Your task to perform on an android device: change keyboard looks Image 0: 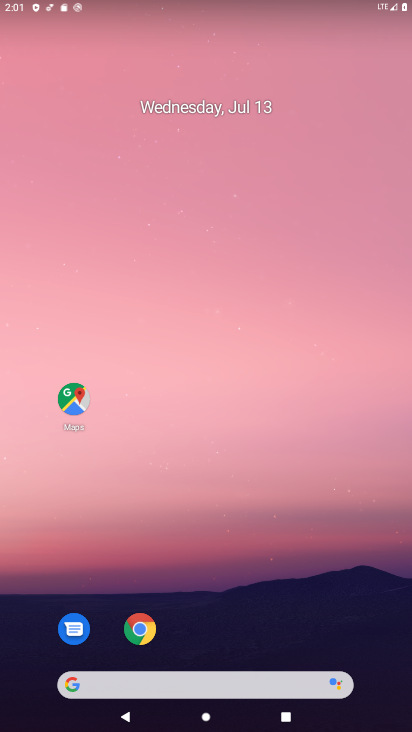
Step 0: drag from (267, 649) to (282, 147)
Your task to perform on an android device: change keyboard looks Image 1: 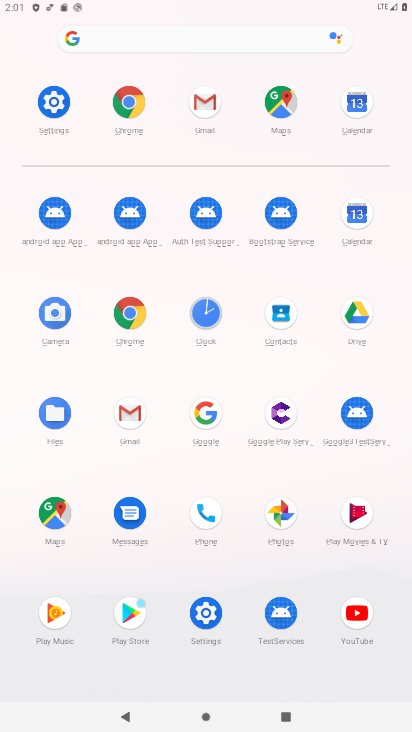
Step 1: click (206, 611)
Your task to perform on an android device: change keyboard looks Image 2: 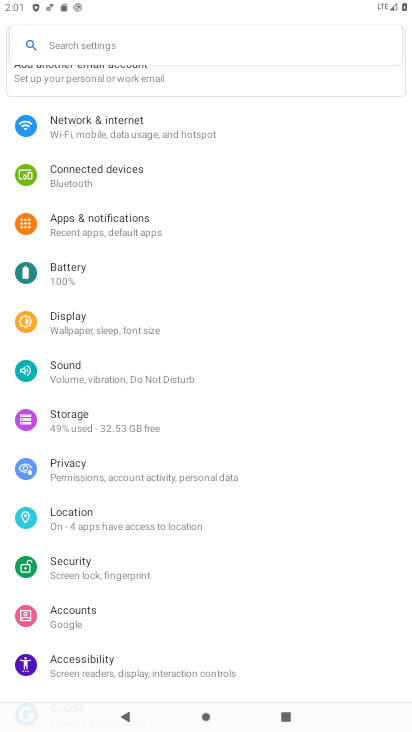
Step 2: drag from (170, 557) to (241, 50)
Your task to perform on an android device: change keyboard looks Image 3: 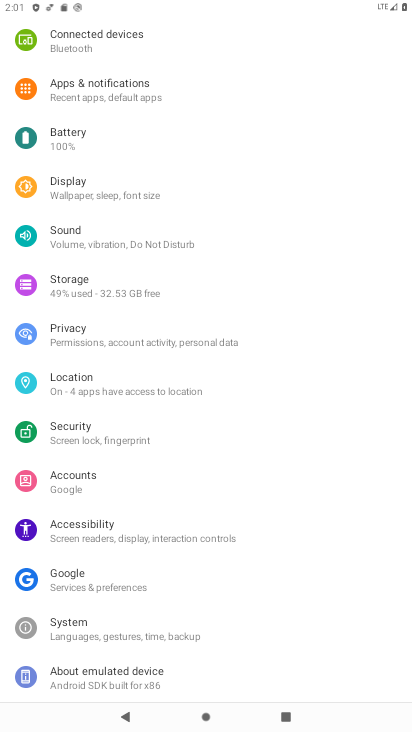
Step 3: click (107, 623)
Your task to perform on an android device: change keyboard looks Image 4: 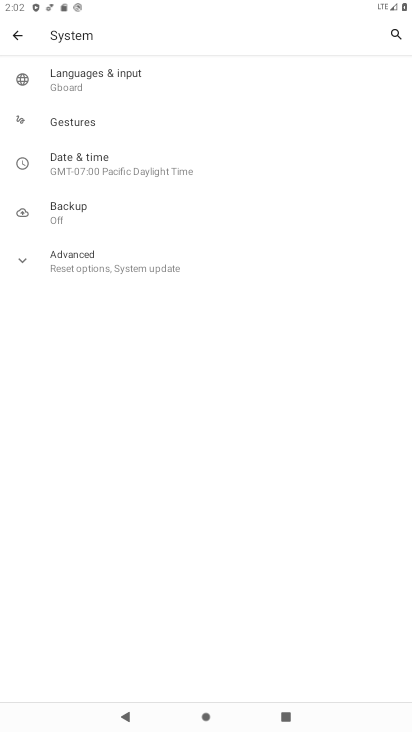
Step 4: click (57, 81)
Your task to perform on an android device: change keyboard looks Image 5: 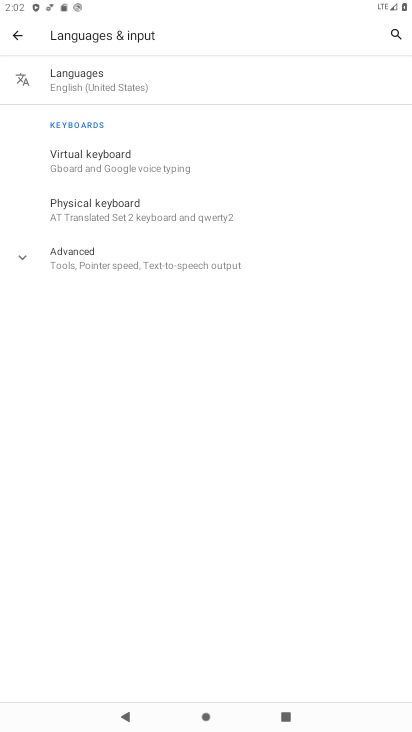
Step 5: click (164, 159)
Your task to perform on an android device: change keyboard looks Image 6: 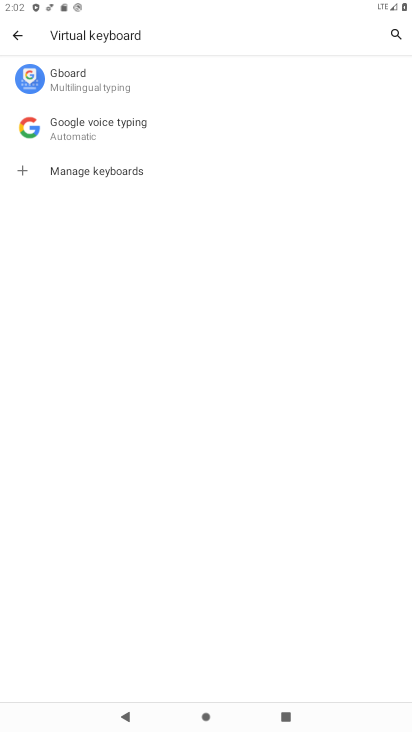
Step 6: click (151, 88)
Your task to perform on an android device: change keyboard looks Image 7: 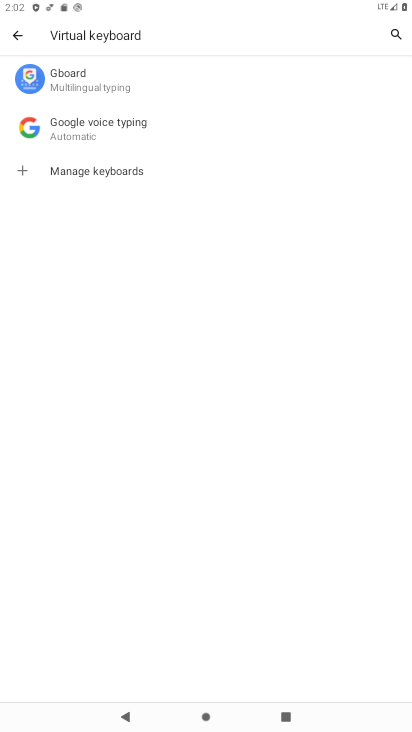
Step 7: click (151, 88)
Your task to perform on an android device: change keyboard looks Image 8: 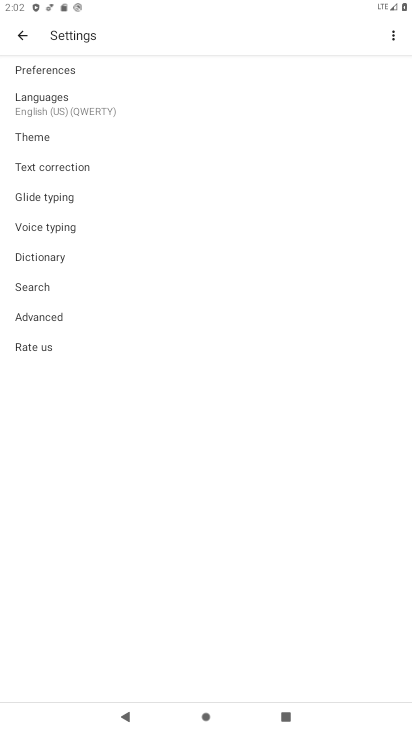
Step 8: click (126, 130)
Your task to perform on an android device: change keyboard looks Image 9: 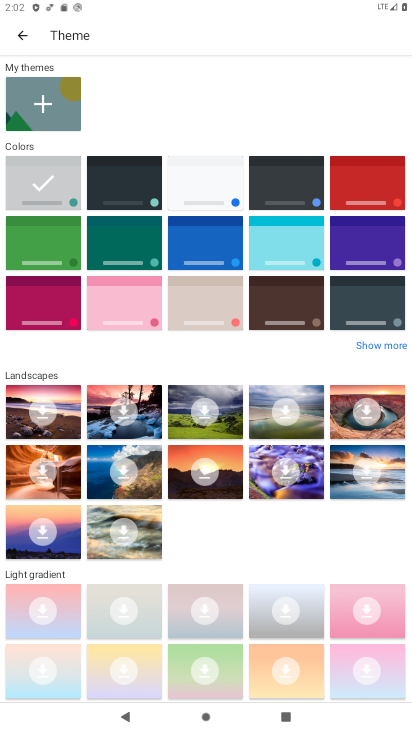
Step 9: click (131, 196)
Your task to perform on an android device: change keyboard looks Image 10: 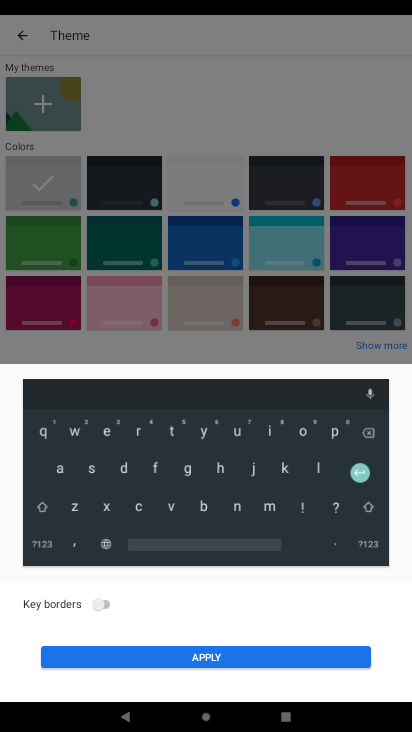
Step 10: task complete